Your task to perform on an android device: find which apps use the phone's location Image 0: 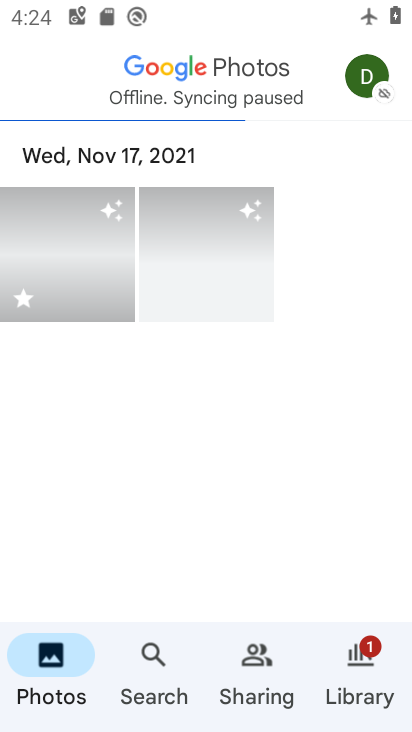
Step 0: press home button
Your task to perform on an android device: find which apps use the phone's location Image 1: 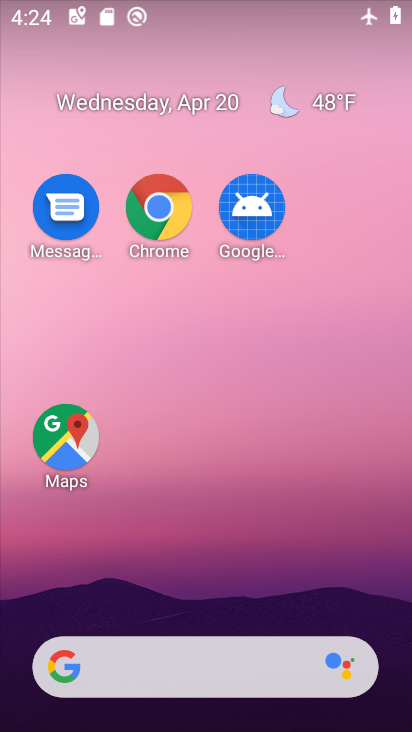
Step 1: click (245, 180)
Your task to perform on an android device: find which apps use the phone's location Image 2: 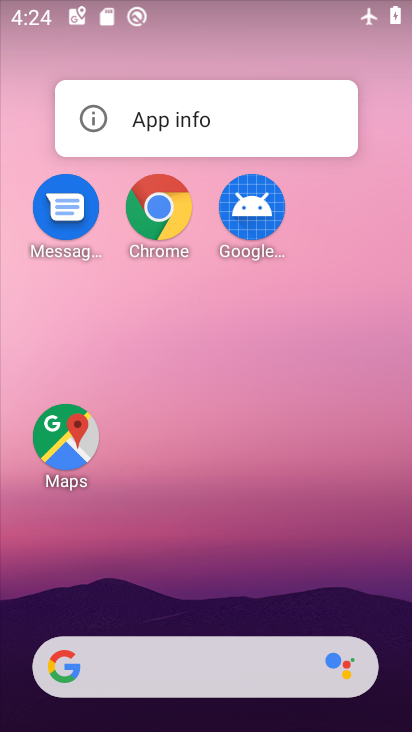
Step 2: drag from (288, 510) to (301, 84)
Your task to perform on an android device: find which apps use the phone's location Image 3: 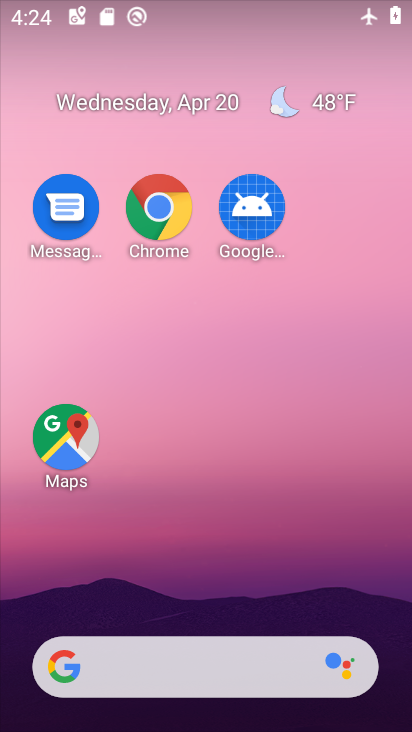
Step 3: drag from (239, 608) to (246, 51)
Your task to perform on an android device: find which apps use the phone's location Image 4: 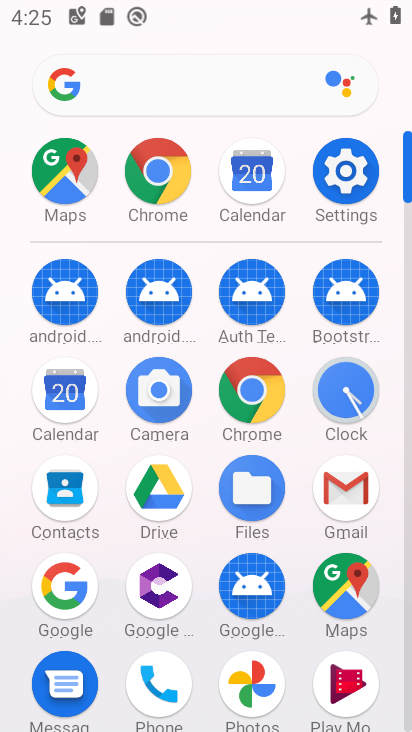
Step 4: drag from (302, 487) to (298, 288)
Your task to perform on an android device: find which apps use the phone's location Image 5: 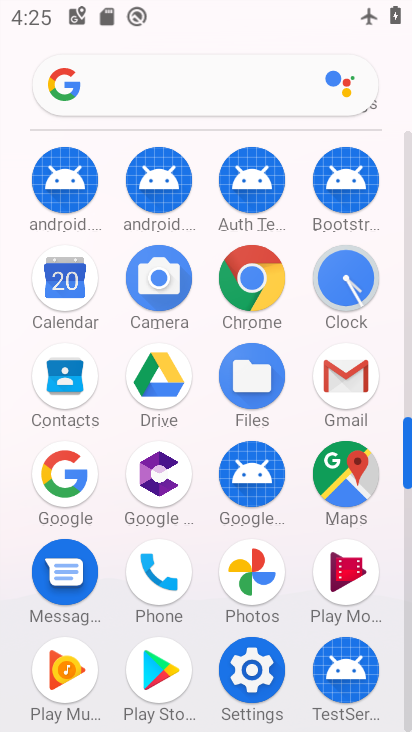
Step 5: click (342, 288)
Your task to perform on an android device: find which apps use the phone's location Image 6: 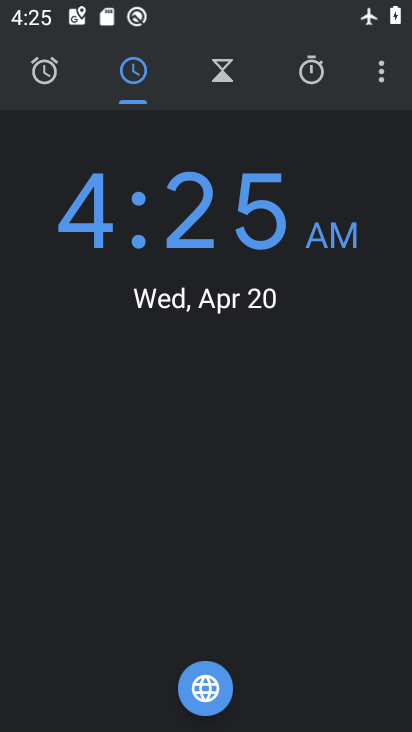
Step 6: click (385, 79)
Your task to perform on an android device: find which apps use the phone's location Image 7: 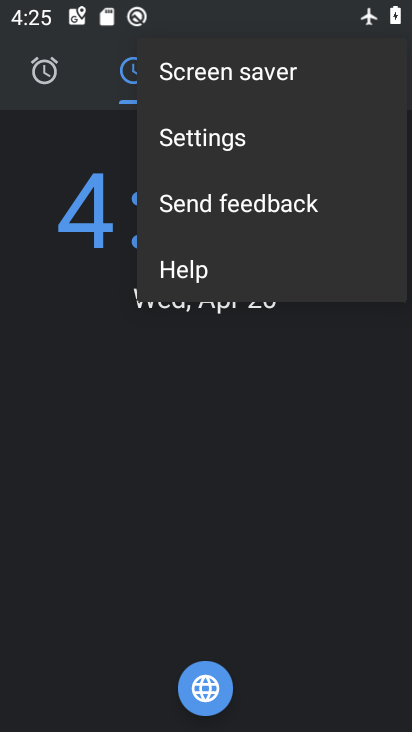
Step 7: press home button
Your task to perform on an android device: find which apps use the phone's location Image 8: 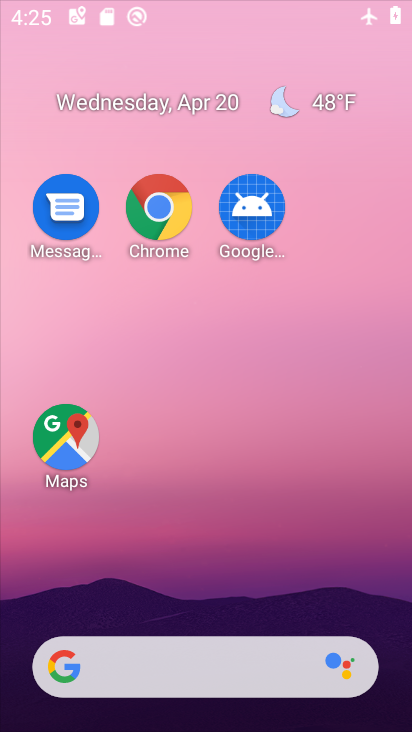
Step 8: drag from (240, 606) to (301, 17)
Your task to perform on an android device: find which apps use the phone's location Image 9: 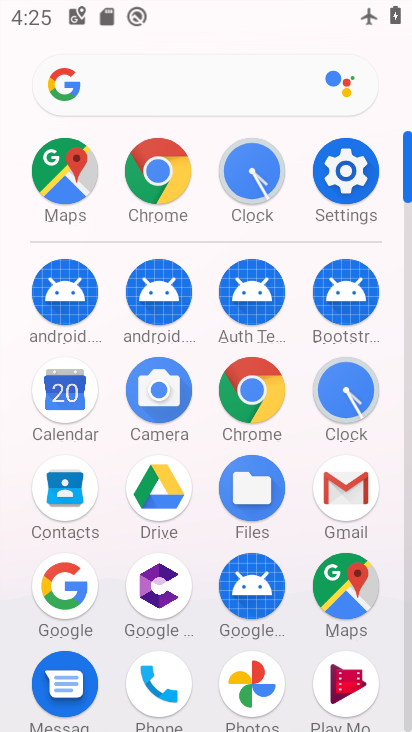
Step 9: click (345, 192)
Your task to perform on an android device: find which apps use the phone's location Image 10: 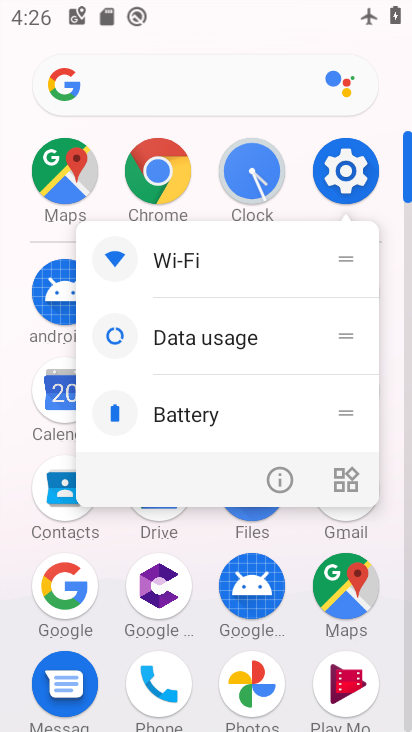
Step 10: click (348, 166)
Your task to perform on an android device: find which apps use the phone's location Image 11: 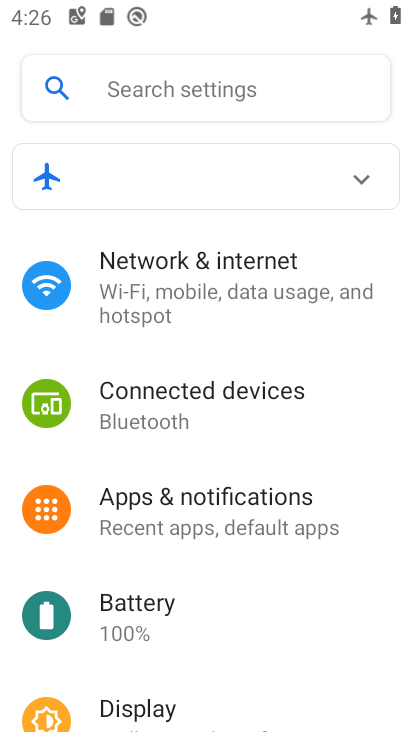
Step 11: drag from (219, 627) to (289, 291)
Your task to perform on an android device: find which apps use the phone's location Image 12: 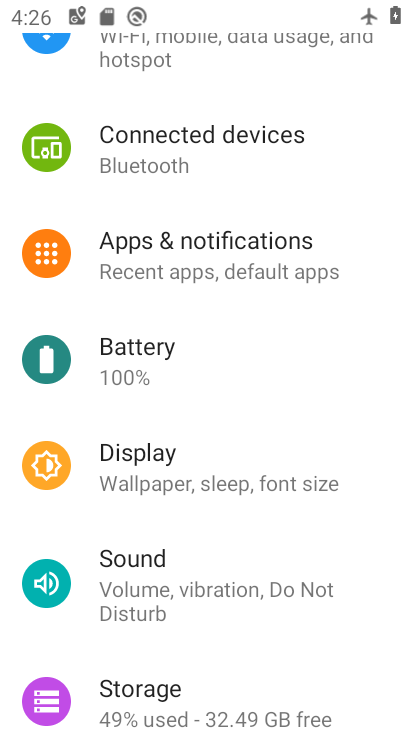
Step 12: drag from (263, 472) to (310, 162)
Your task to perform on an android device: find which apps use the phone's location Image 13: 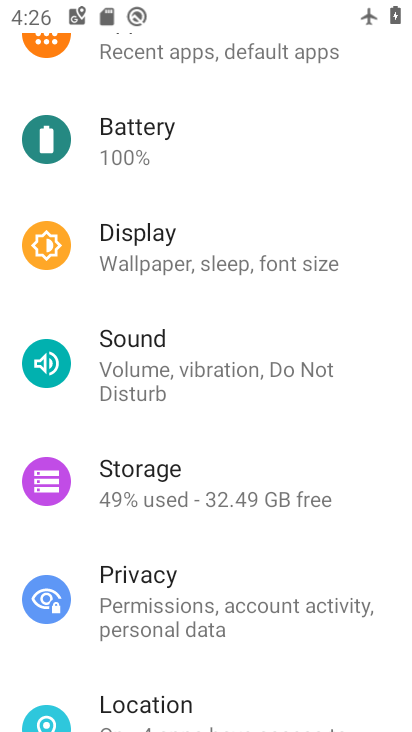
Step 13: drag from (208, 645) to (256, 276)
Your task to perform on an android device: find which apps use the phone's location Image 14: 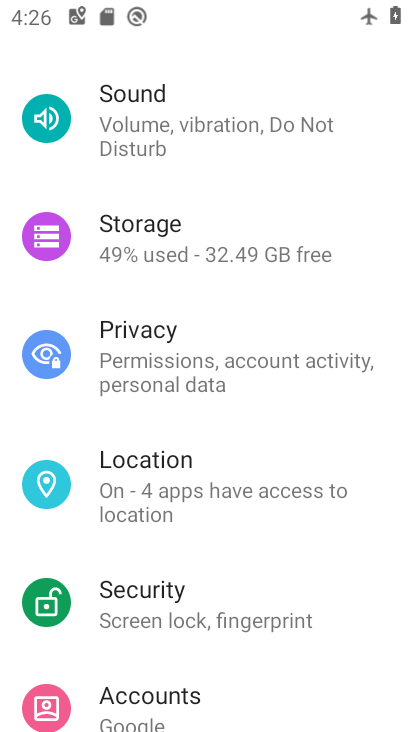
Step 14: click (224, 476)
Your task to perform on an android device: find which apps use the phone's location Image 15: 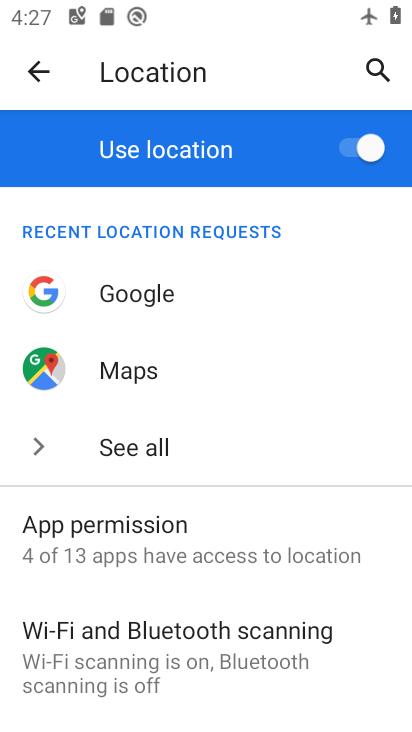
Step 15: drag from (208, 536) to (247, 320)
Your task to perform on an android device: find which apps use the phone's location Image 16: 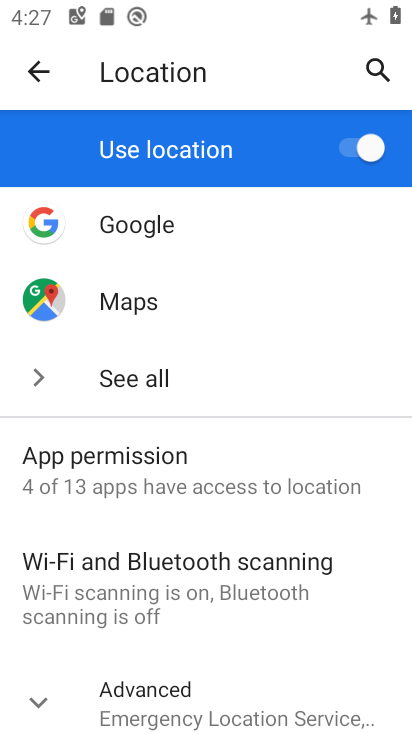
Step 16: click (185, 483)
Your task to perform on an android device: find which apps use the phone's location Image 17: 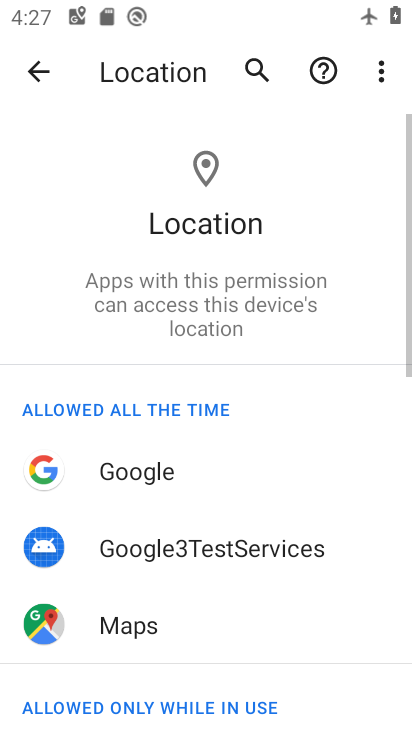
Step 17: task complete